Your task to perform on an android device: Go to settings Image 0: 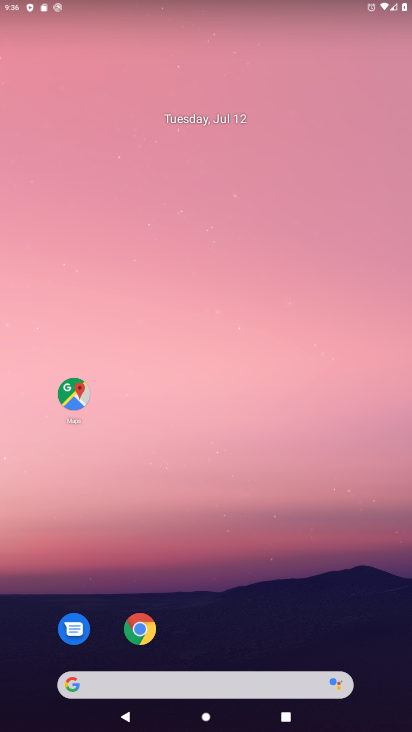
Step 0: drag from (372, 651) to (313, 99)
Your task to perform on an android device: Go to settings Image 1: 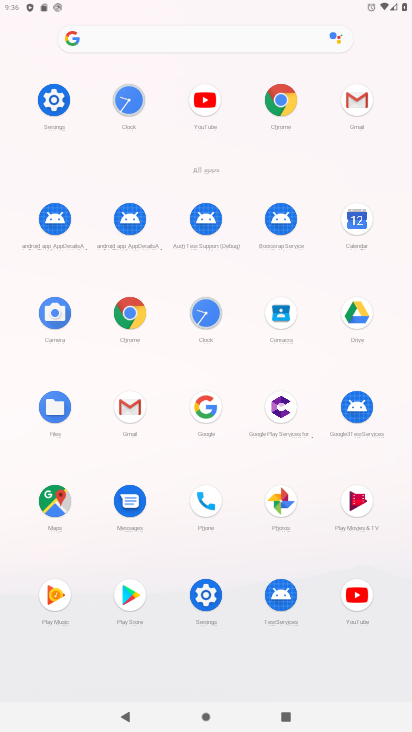
Step 1: click (206, 595)
Your task to perform on an android device: Go to settings Image 2: 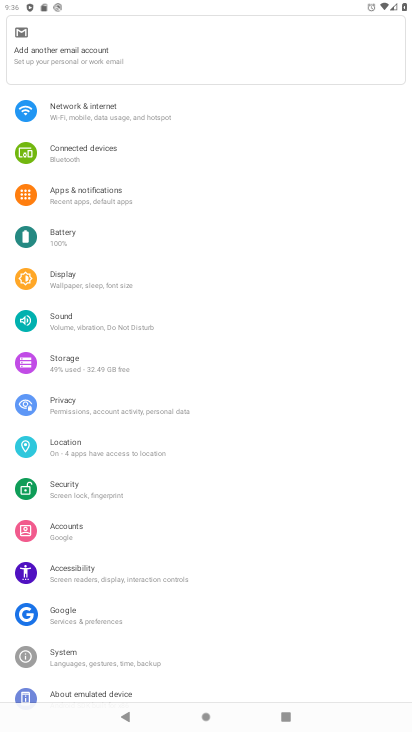
Step 2: task complete